Your task to perform on an android device: Go to calendar. Show me events next week Image 0: 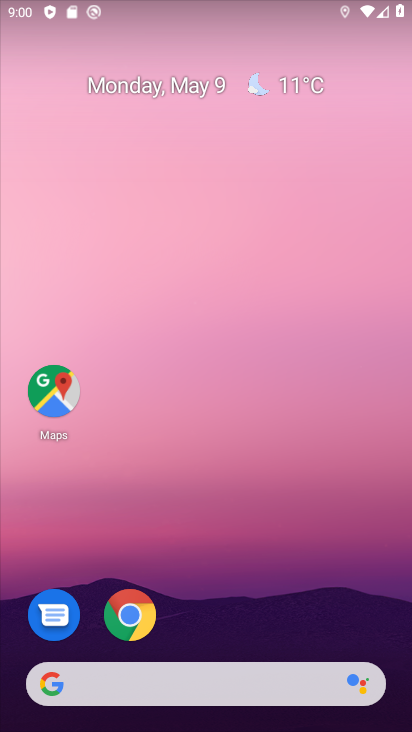
Step 0: drag from (231, 525) to (191, 21)
Your task to perform on an android device: Go to calendar. Show me events next week Image 1: 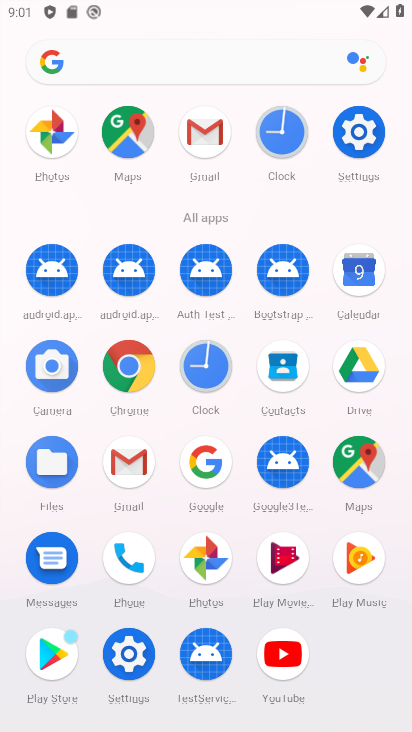
Step 1: click (358, 270)
Your task to perform on an android device: Go to calendar. Show me events next week Image 2: 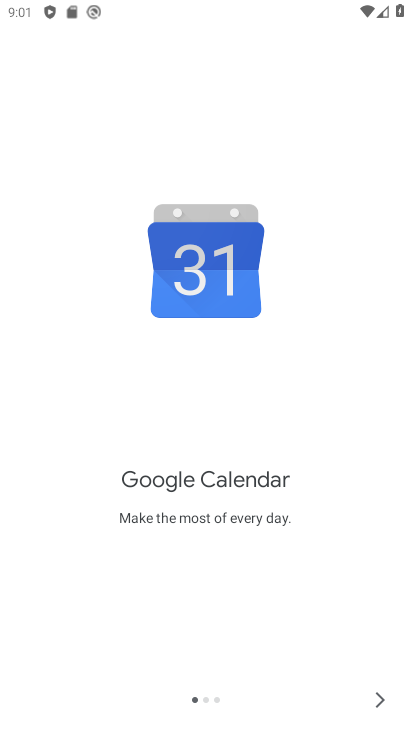
Step 2: click (373, 702)
Your task to perform on an android device: Go to calendar. Show me events next week Image 3: 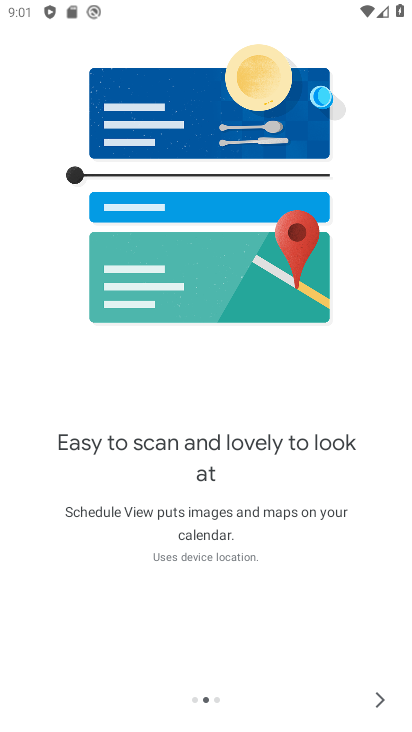
Step 3: click (373, 702)
Your task to perform on an android device: Go to calendar. Show me events next week Image 4: 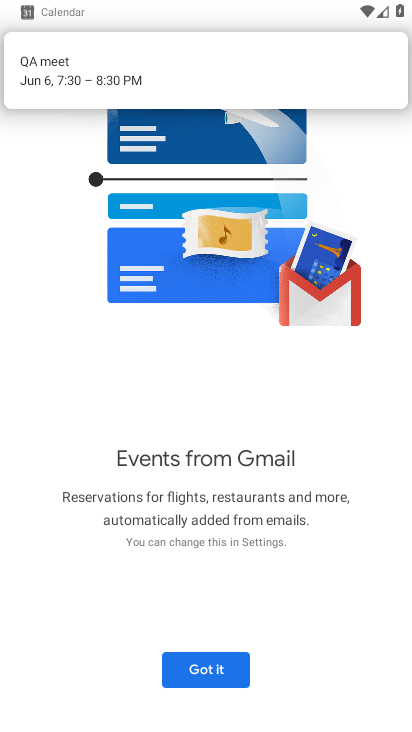
Step 4: click (237, 670)
Your task to perform on an android device: Go to calendar. Show me events next week Image 5: 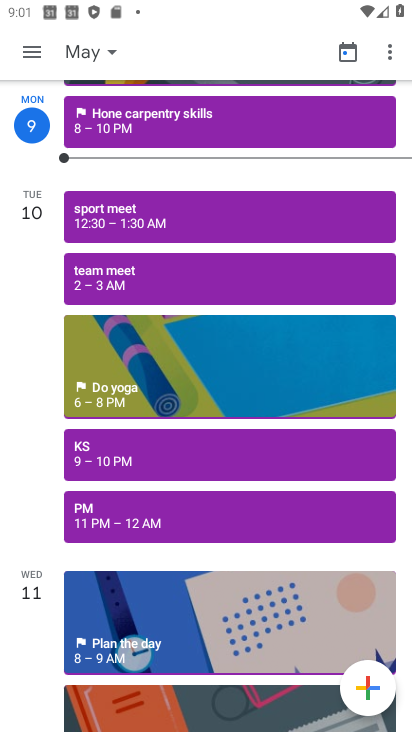
Step 5: click (35, 55)
Your task to perform on an android device: Go to calendar. Show me events next week Image 6: 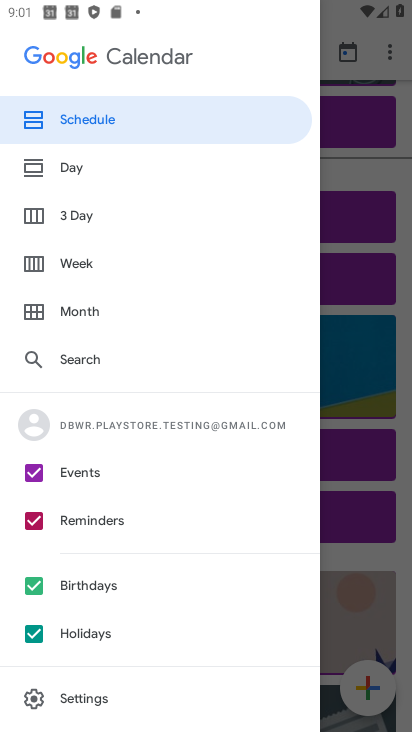
Step 6: click (85, 266)
Your task to perform on an android device: Go to calendar. Show me events next week Image 7: 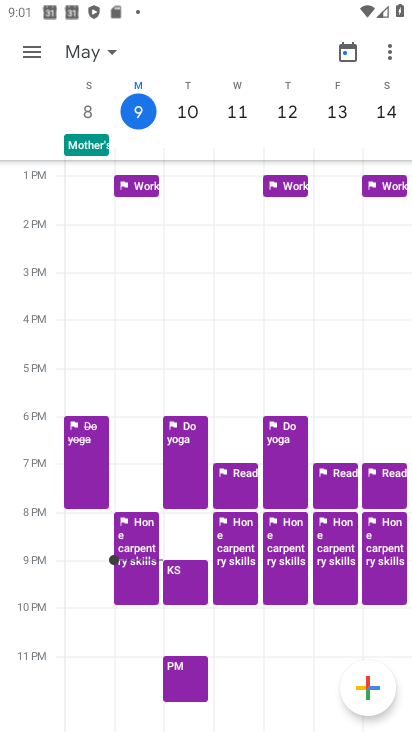
Step 7: task complete